Your task to perform on an android device: toggle location history Image 0: 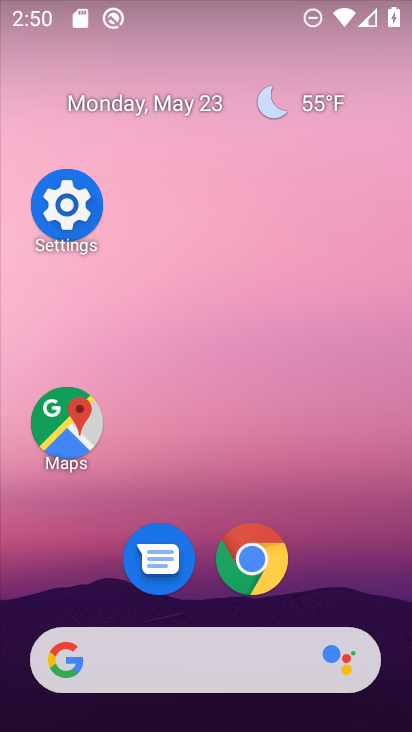
Step 0: click (50, 216)
Your task to perform on an android device: toggle location history Image 1: 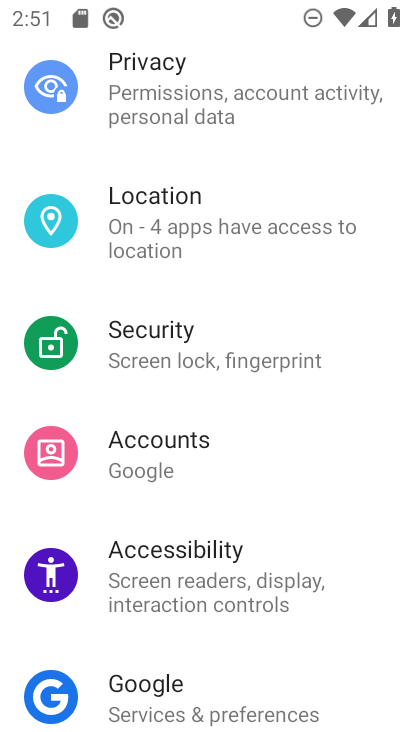
Step 1: click (212, 234)
Your task to perform on an android device: toggle location history Image 2: 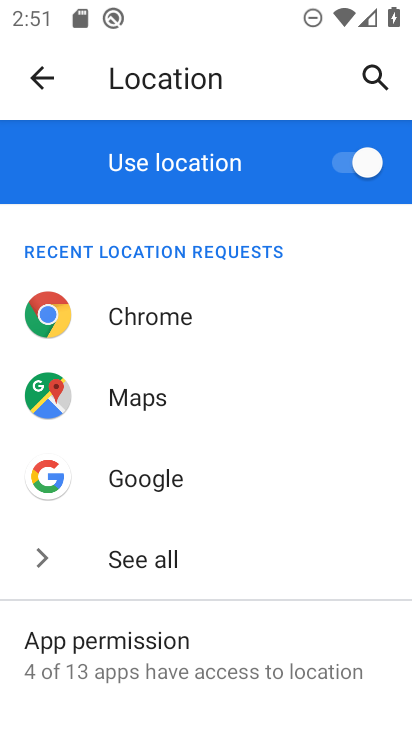
Step 2: drag from (209, 554) to (255, 137)
Your task to perform on an android device: toggle location history Image 3: 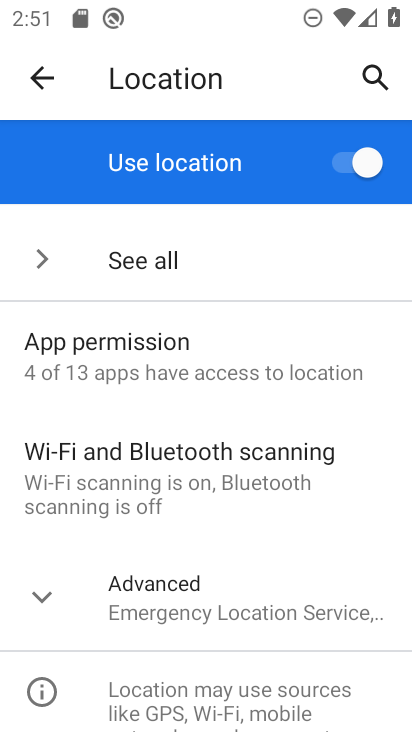
Step 3: click (209, 617)
Your task to perform on an android device: toggle location history Image 4: 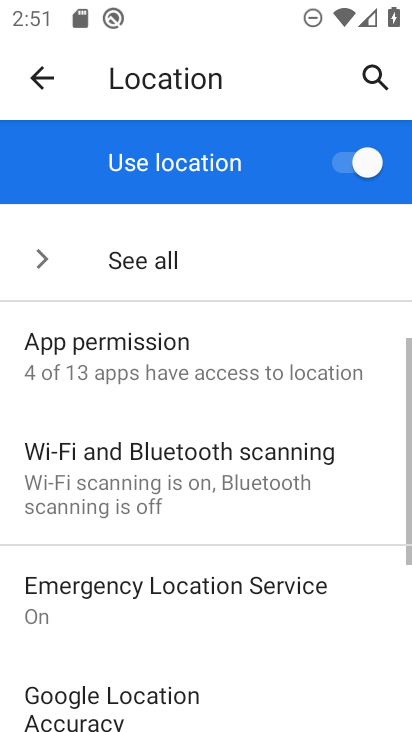
Step 4: drag from (209, 617) to (228, 256)
Your task to perform on an android device: toggle location history Image 5: 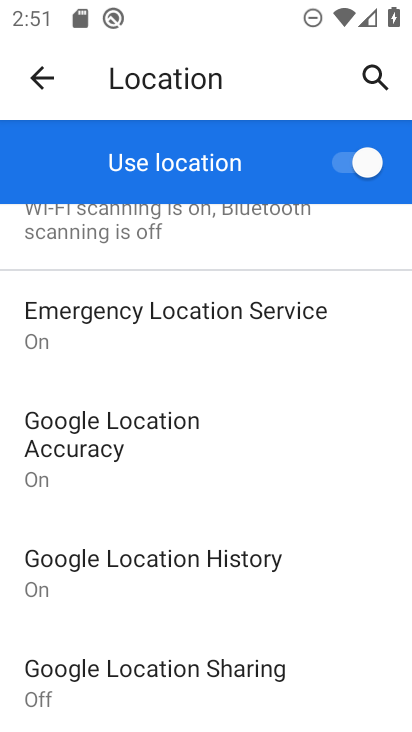
Step 5: click (195, 567)
Your task to perform on an android device: toggle location history Image 6: 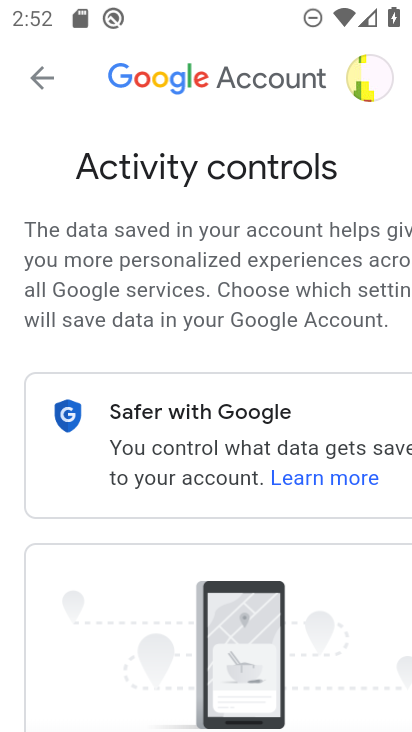
Step 6: drag from (175, 588) to (228, 153)
Your task to perform on an android device: toggle location history Image 7: 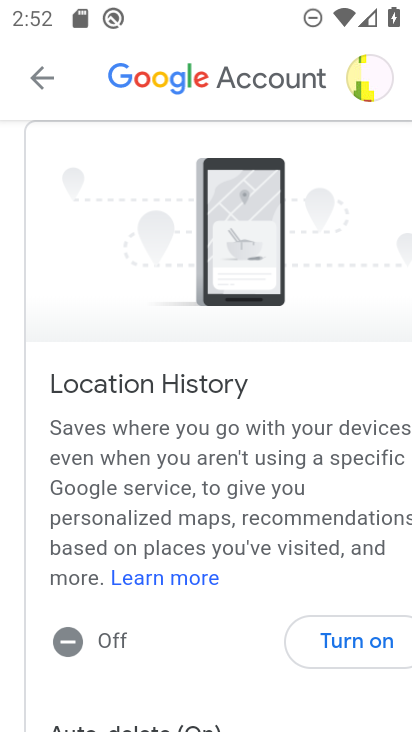
Step 7: drag from (235, 534) to (272, 173)
Your task to perform on an android device: toggle location history Image 8: 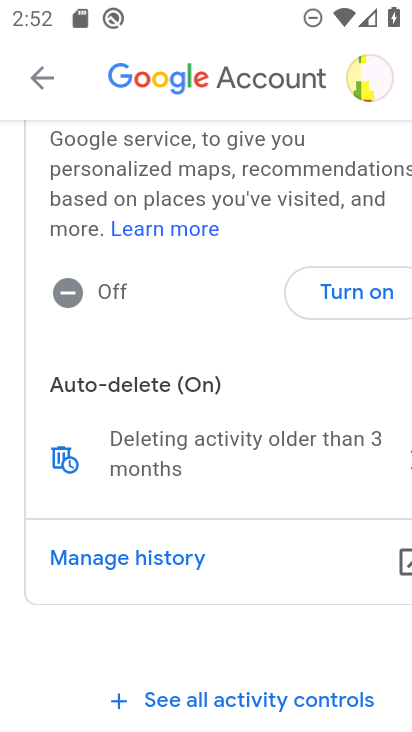
Step 8: drag from (206, 458) to (233, 128)
Your task to perform on an android device: toggle location history Image 9: 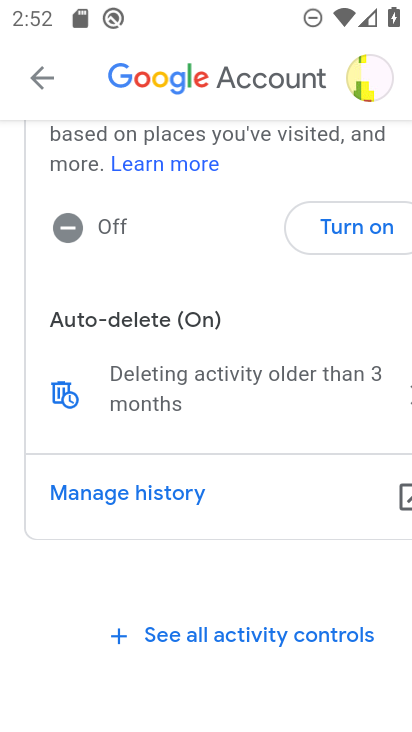
Step 9: click (336, 241)
Your task to perform on an android device: toggle location history Image 10: 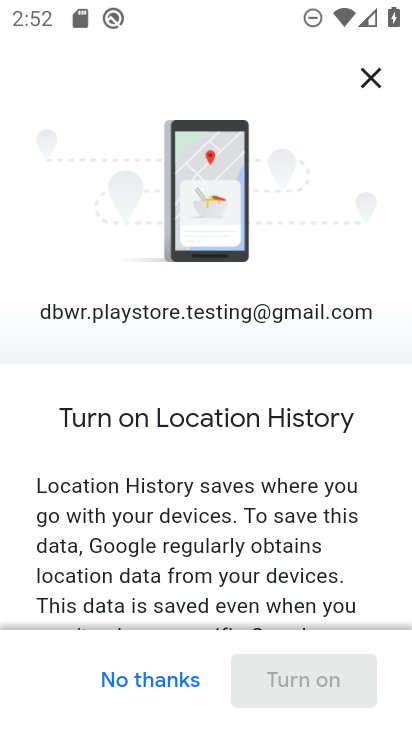
Step 10: drag from (268, 554) to (262, 77)
Your task to perform on an android device: toggle location history Image 11: 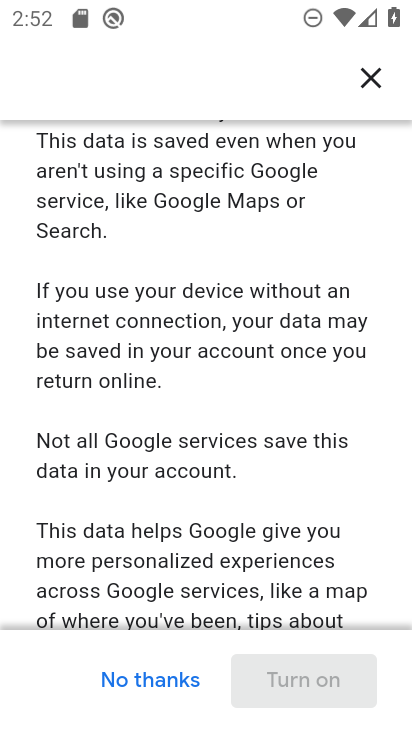
Step 11: drag from (265, 514) to (198, 80)
Your task to perform on an android device: toggle location history Image 12: 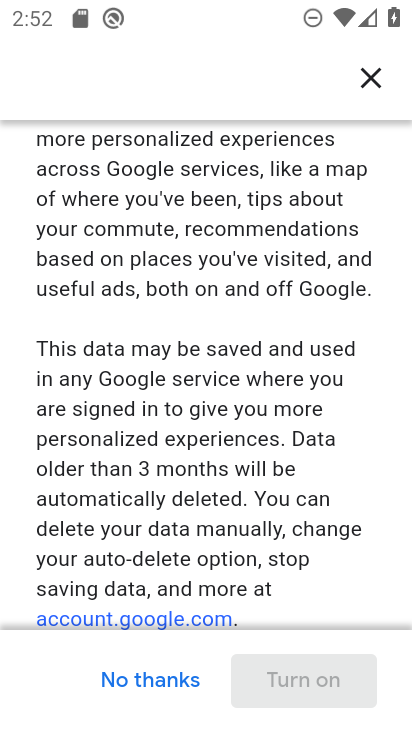
Step 12: drag from (277, 559) to (256, 183)
Your task to perform on an android device: toggle location history Image 13: 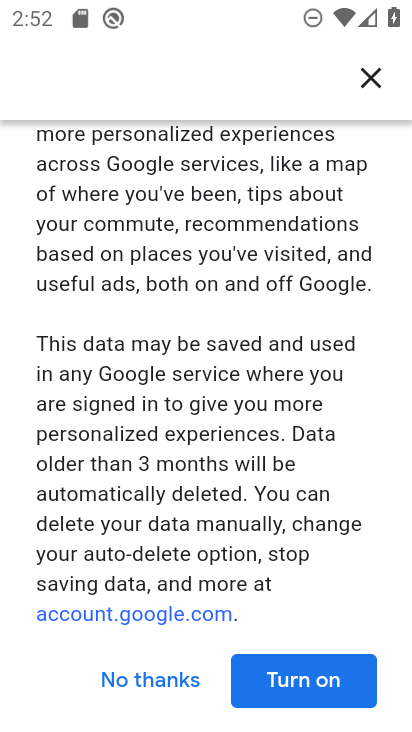
Step 13: click (315, 687)
Your task to perform on an android device: toggle location history Image 14: 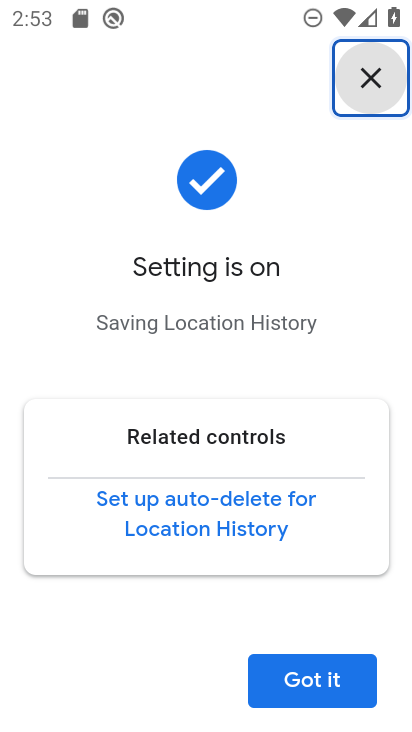
Step 14: click (315, 687)
Your task to perform on an android device: toggle location history Image 15: 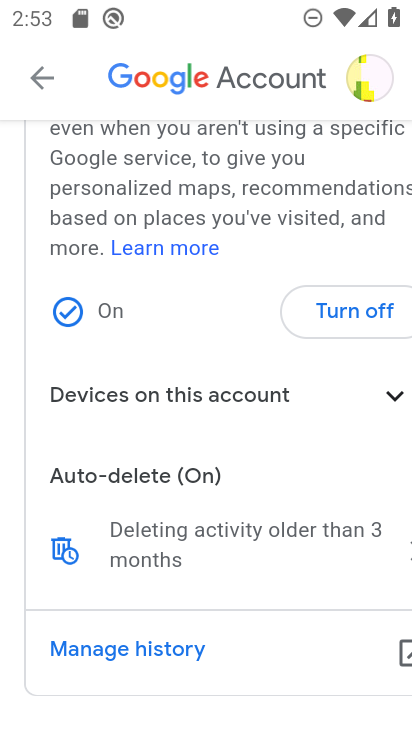
Step 15: task complete